Your task to perform on an android device: Do I have any events tomorrow? Image 0: 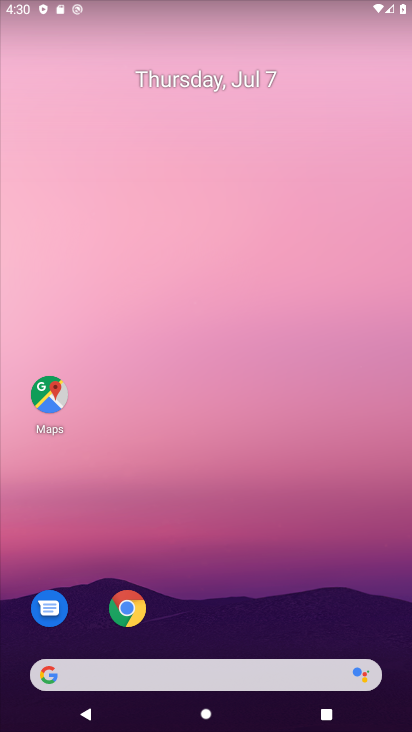
Step 0: press home button
Your task to perform on an android device: Do I have any events tomorrow? Image 1: 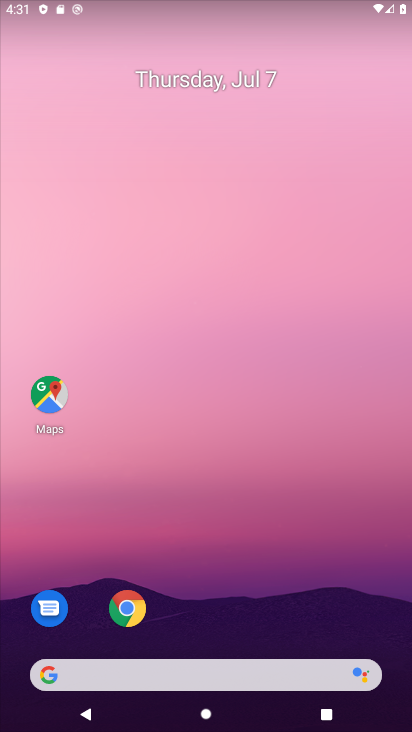
Step 1: press home button
Your task to perform on an android device: Do I have any events tomorrow? Image 2: 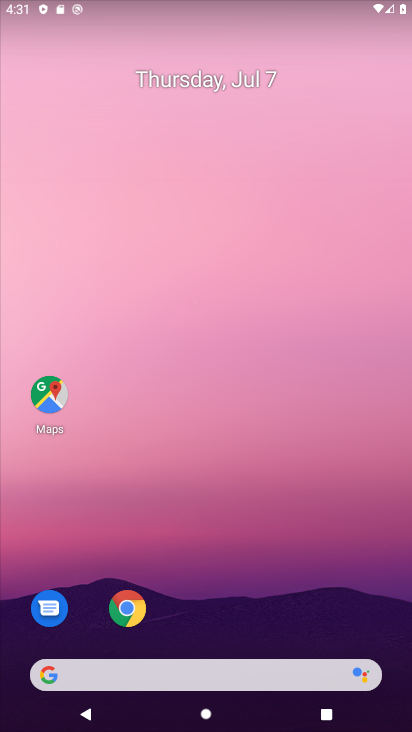
Step 2: drag from (230, 622) to (219, 0)
Your task to perform on an android device: Do I have any events tomorrow? Image 3: 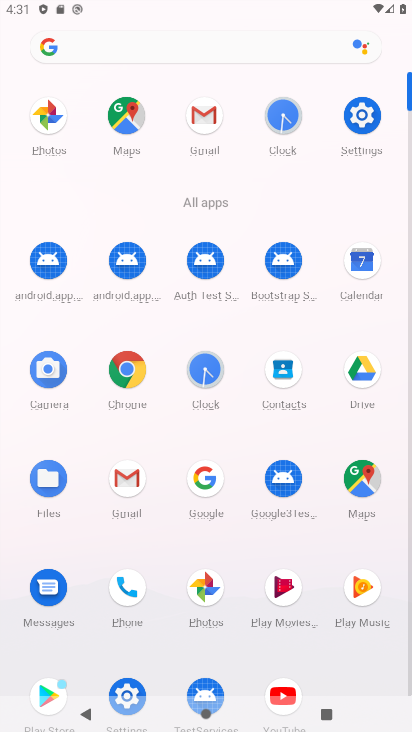
Step 3: click (361, 265)
Your task to perform on an android device: Do I have any events tomorrow? Image 4: 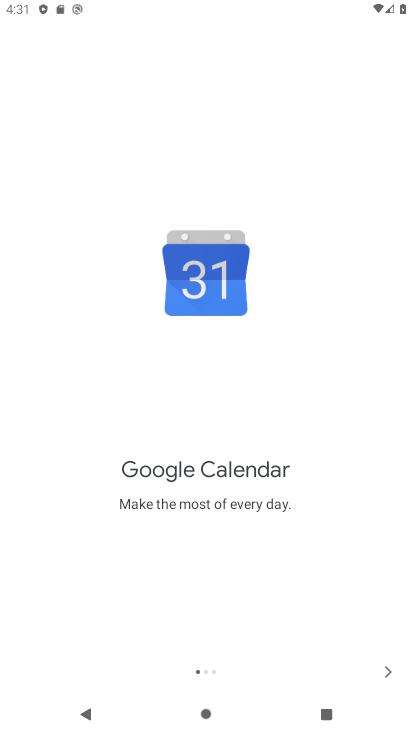
Step 4: click (375, 671)
Your task to perform on an android device: Do I have any events tomorrow? Image 5: 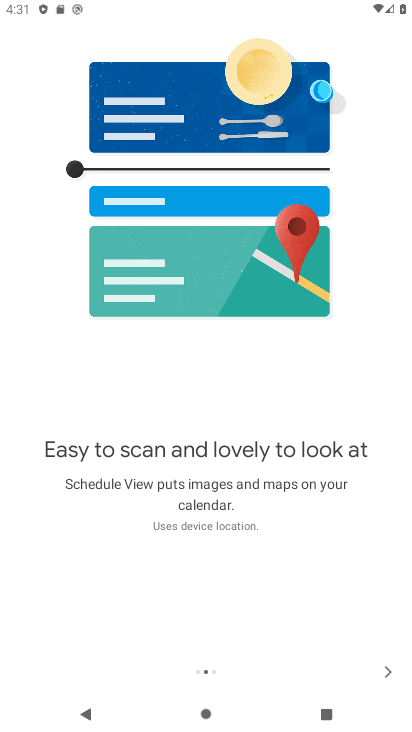
Step 5: click (382, 669)
Your task to perform on an android device: Do I have any events tomorrow? Image 6: 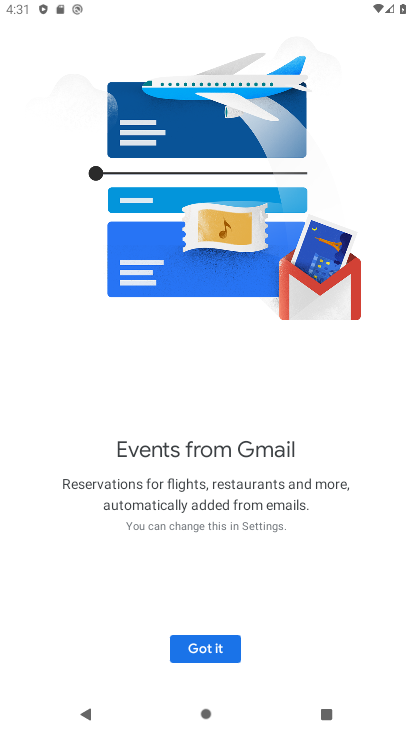
Step 6: click (204, 650)
Your task to perform on an android device: Do I have any events tomorrow? Image 7: 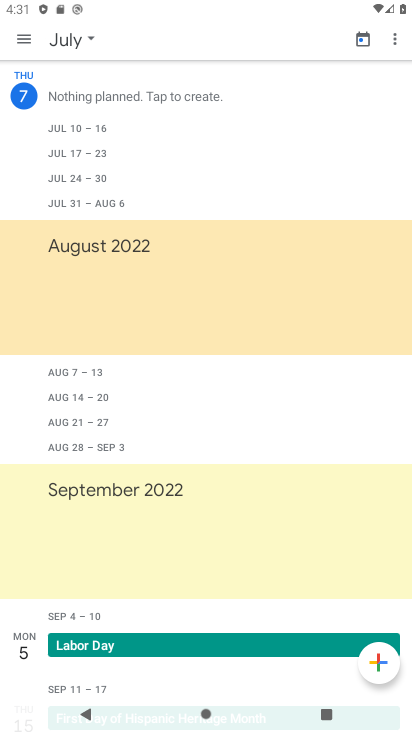
Step 7: click (91, 32)
Your task to perform on an android device: Do I have any events tomorrow? Image 8: 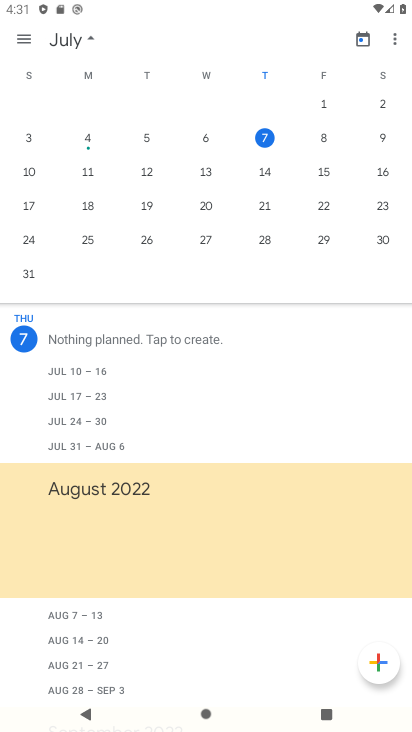
Step 8: click (323, 136)
Your task to perform on an android device: Do I have any events tomorrow? Image 9: 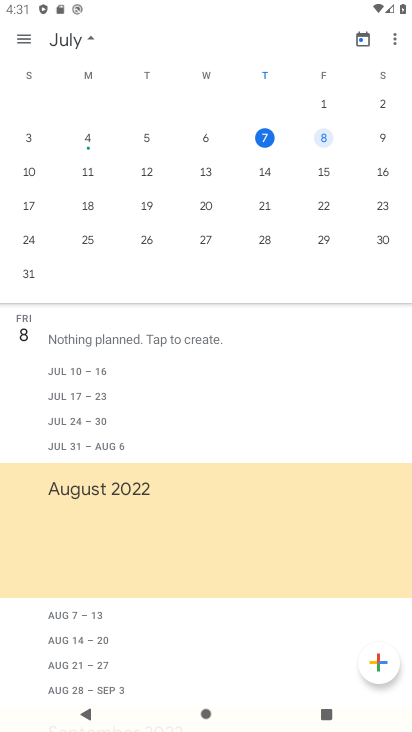
Step 9: click (24, 333)
Your task to perform on an android device: Do I have any events tomorrow? Image 10: 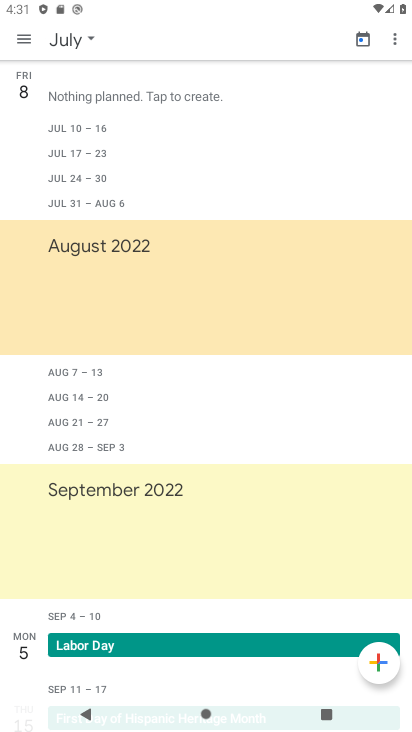
Step 10: click (33, 100)
Your task to perform on an android device: Do I have any events tomorrow? Image 11: 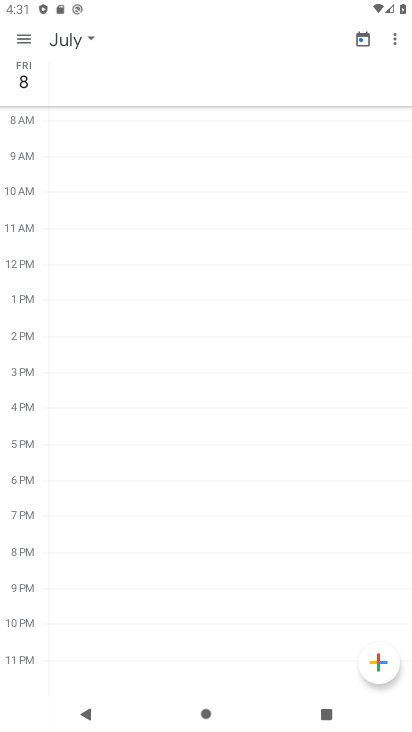
Step 11: task complete